Your task to perform on an android device: Install the Reddit app Image 0: 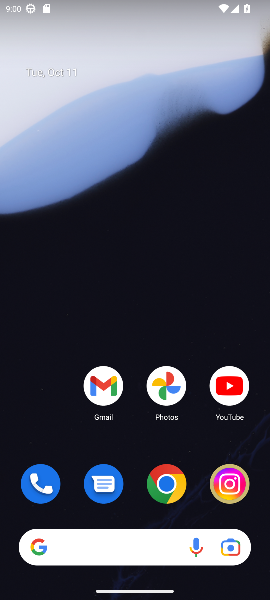
Step 0: drag from (167, 543) to (190, 149)
Your task to perform on an android device: Install the Reddit app Image 1: 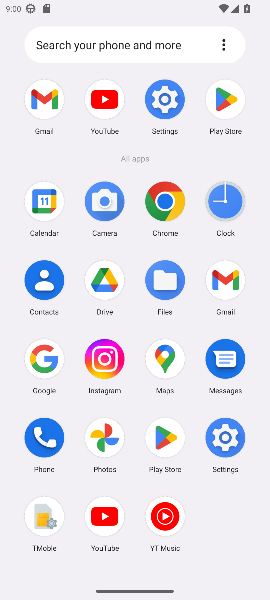
Step 1: click (226, 98)
Your task to perform on an android device: Install the Reddit app Image 2: 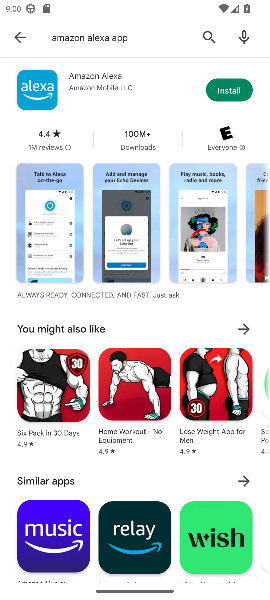
Step 2: click (209, 37)
Your task to perform on an android device: Install the Reddit app Image 3: 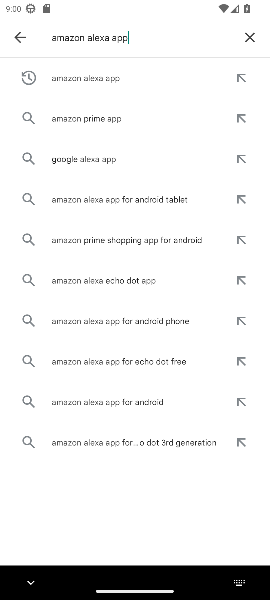
Step 3: click (251, 36)
Your task to perform on an android device: Install the Reddit app Image 4: 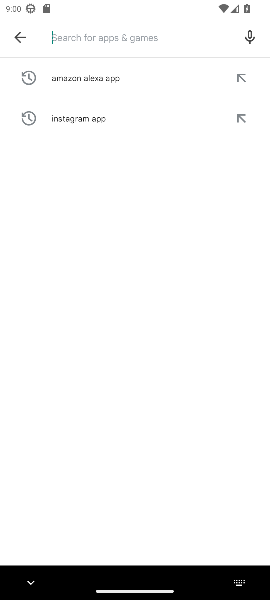
Step 4: type "Reddit app"
Your task to perform on an android device: Install the Reddit app Image 5: 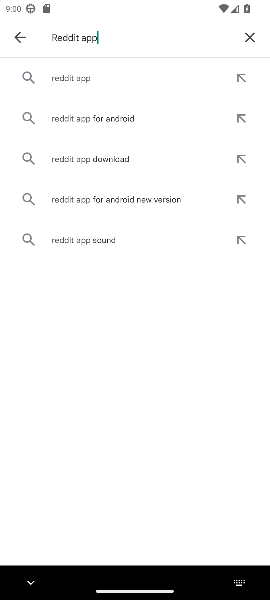
Step 5: click (78, 81)
Your task to perform on an android device: Install the Reddit app Image 6: 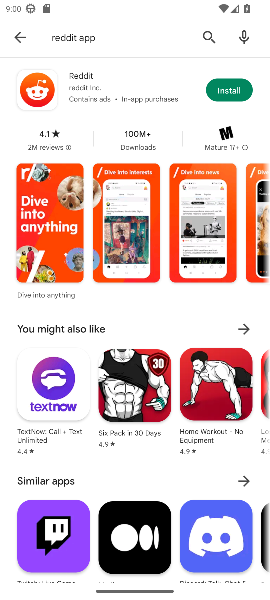
Step 6: click (229, 90)
Your task to perform on an android device: Install the Reddit app Image 7: 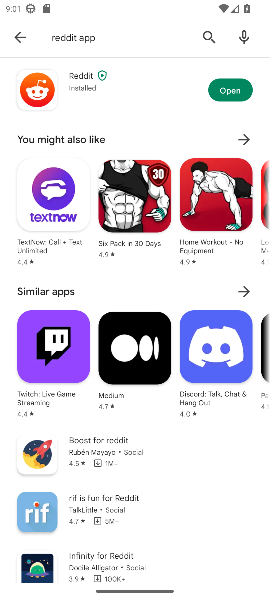
Step 7: task complete